Your task to perform on an android device: Open sound settings Image 0: 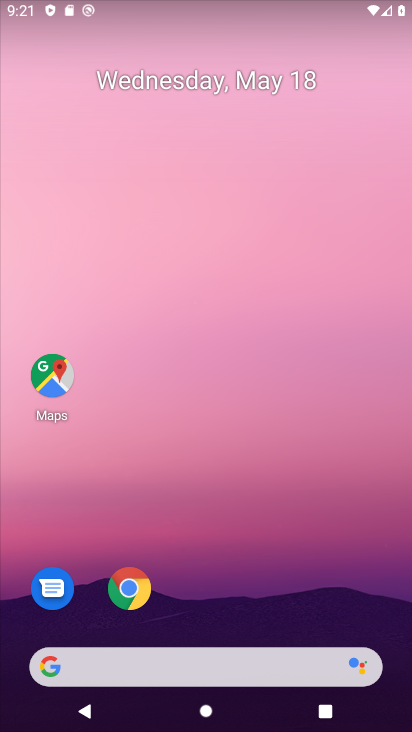
Step 0: drag from (286, 669) to (339, 74)
Your task to perform on an android device: Open sound settings Image 1: 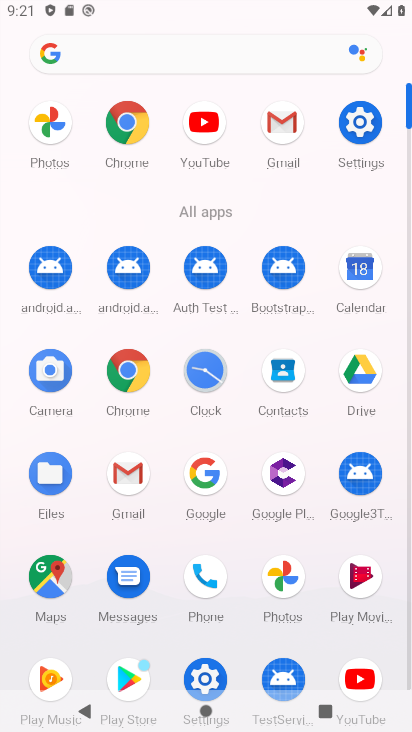
Step 1: click (354, 120)
Your task to perform on an android device: Open sound settings Image 2: 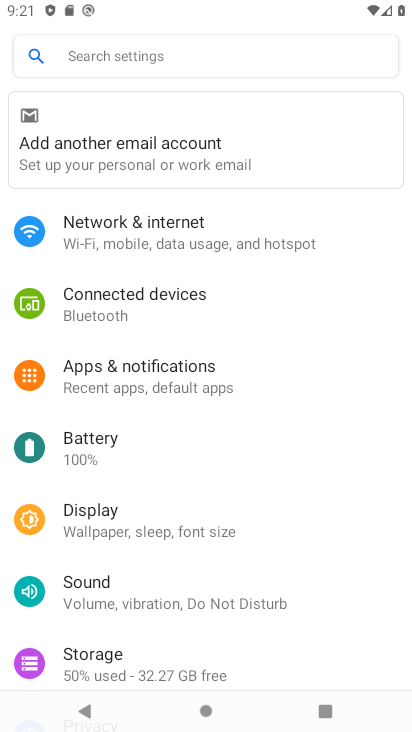
Step 2: click (175, 54)
Your task to perform on an android device: Open sound settings Image 3: 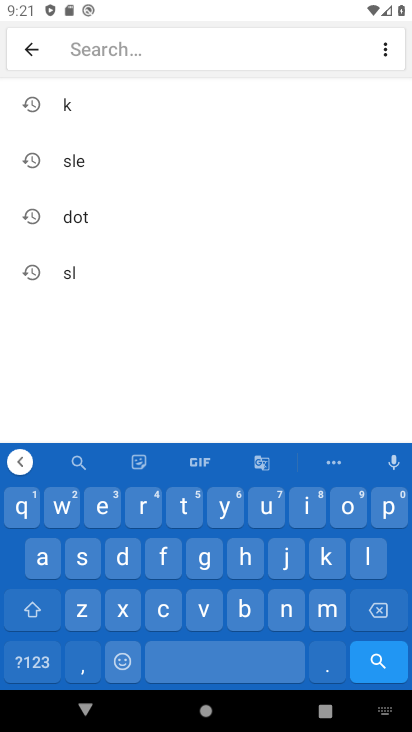
Step 3: click (83, 556)
Your task to perform on an android device: Open sound settings Image 4: 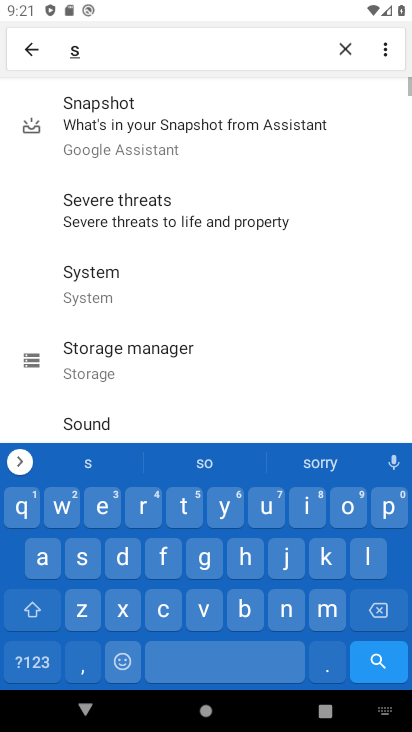
Step 4: click (356, 510)
Your task to perform on an android device: Open sound settings Image 5: 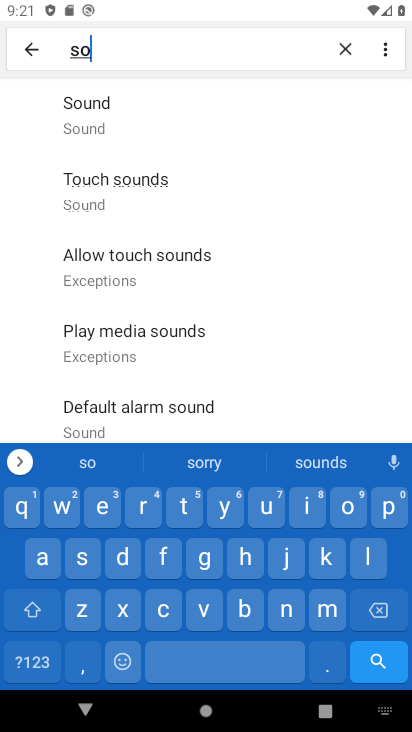
Step 5: click (123, 118)
Your task to perform on an android device: Open sound settings Image 6: 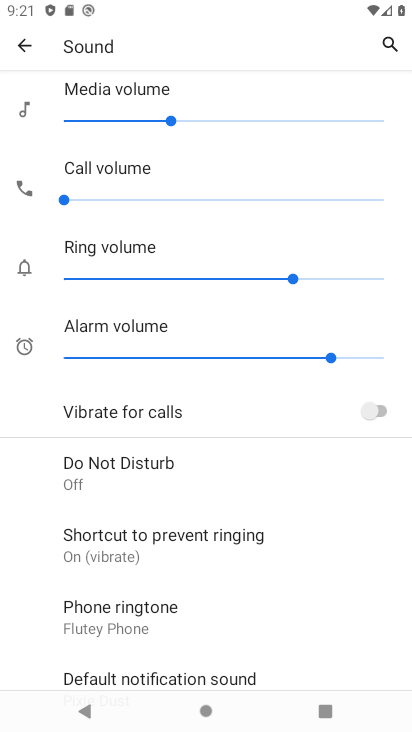
Step 6: task complete